Your task to perform on an android device: choose inbox layout in the gmail app Image 0: 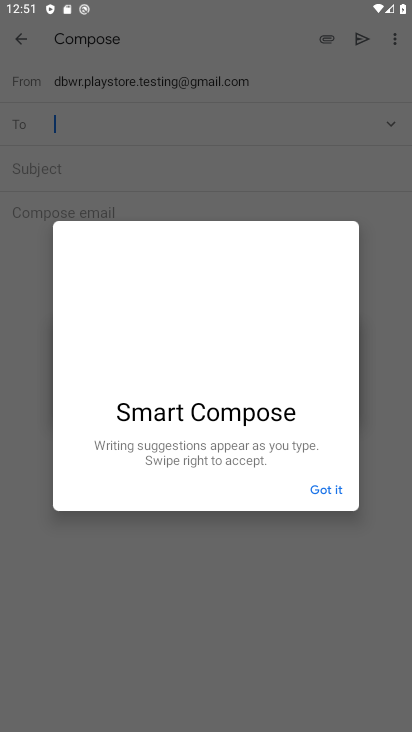
Step 0: press home button
Your task to perform on an android device: choose inbox layout in the gmail app Image 1: 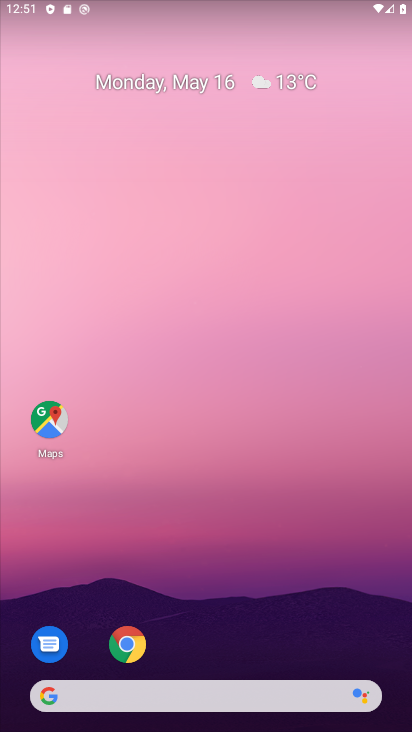
Step 1: drag from (222, 501) to (239, 260)
Your task to perform on an android device: choose inbox layout in the gmail app Image 2: 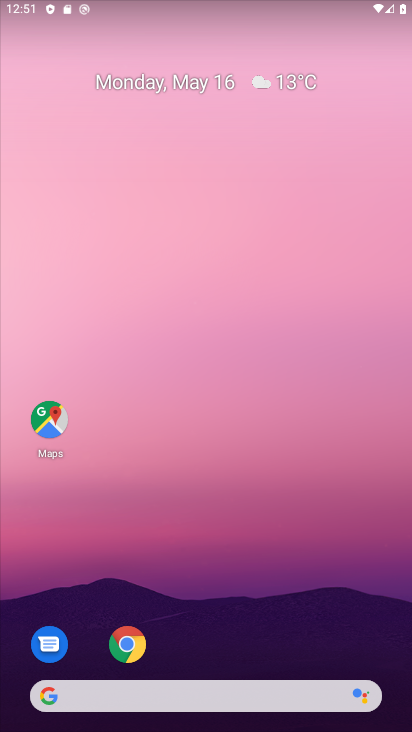
Step 2: drag from (256, 635) to (261, 252)
Your task to perform on an android device: choose inbox layout in the gmail app Image 3: 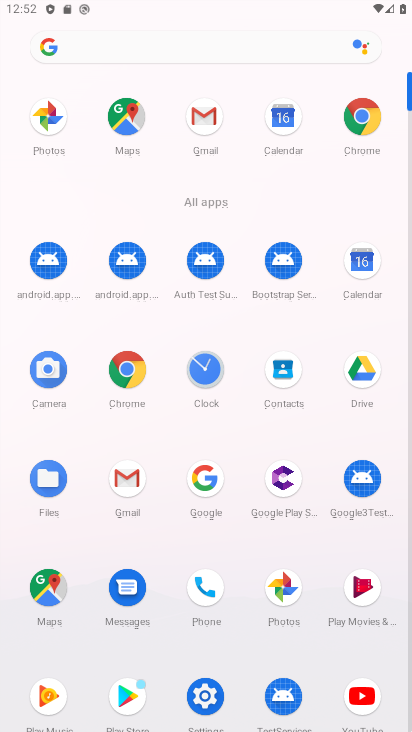
Step 3: click (130, 493)
Your task to perform on an android device: choose inbox layout in the gmail app Image 4: 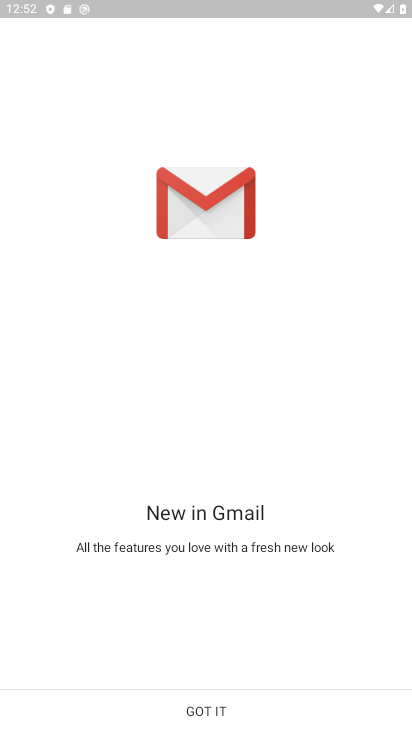
Step 4: click (230, 707)
Your task to perform on an android device: choose inbox layout in the gmail app Image 5: 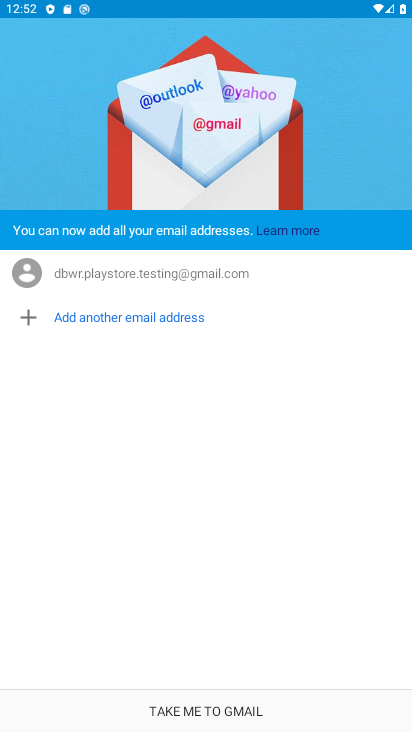
Step 5: click (232, 707)
Your task to perform on an android device: choose inbox layout in the gmail app Image 6: 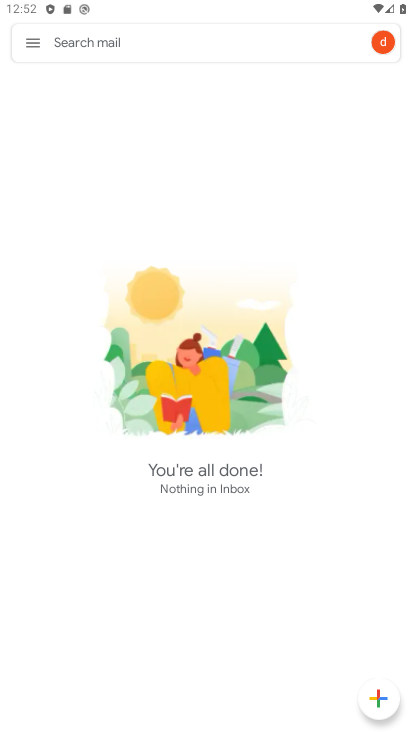
Step 6: click (30, 41)
Your task to perform on an android device: choose inbox layout in the gmail app Image 7: 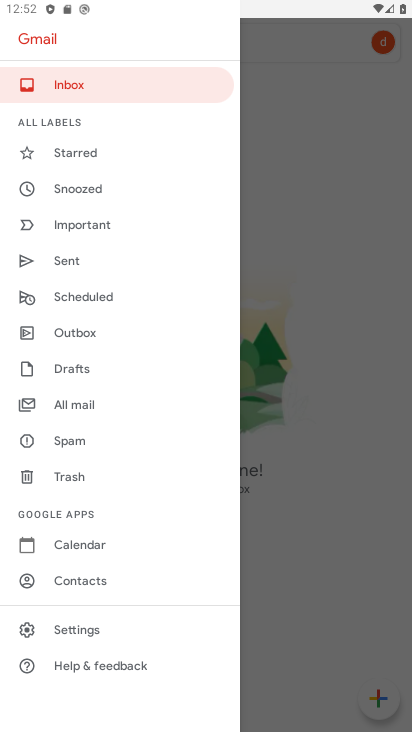
Step 7: click (82, 647)
Your task to perform on an android device: choose inbox layout in the gmail app Image 8: 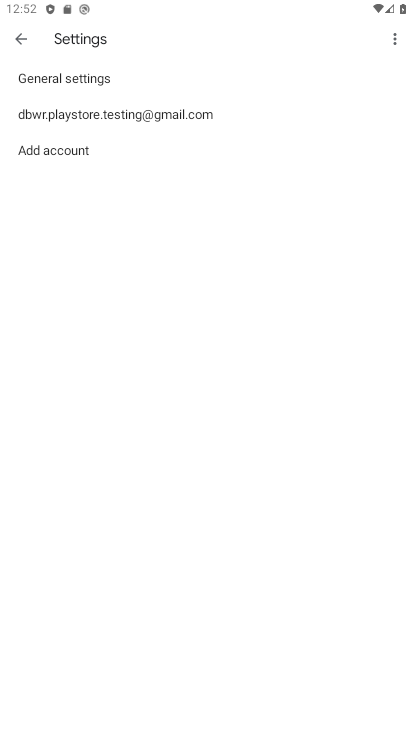
Step 8: click (92, 79)
Your task to perform on an android device: choose inbox layout in the gmail app Image 9: 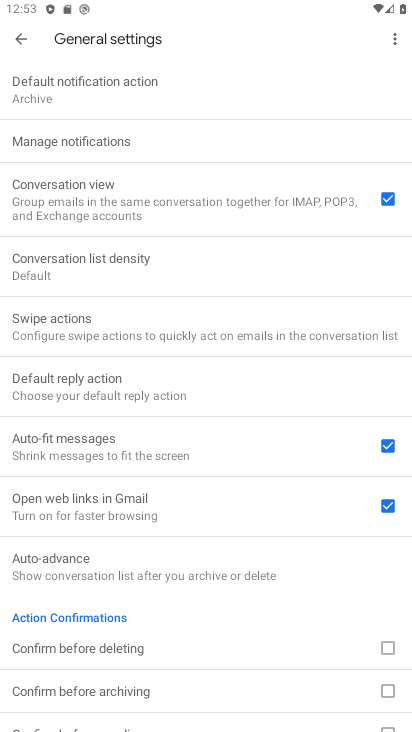
Step 9: task complete